Your task to perform on an android device: make emails show in primary in the gmail app Image 0: 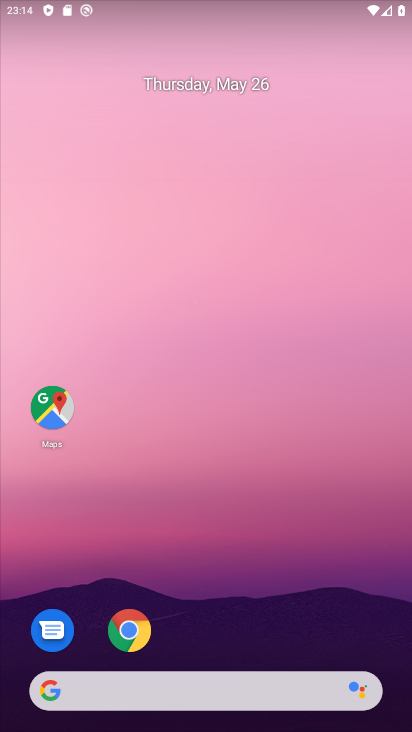
Step 0: drag from (262, 596) to (285, 98)
Your task to perform on an android device: make emails show in primary in the gmail app Image 1: 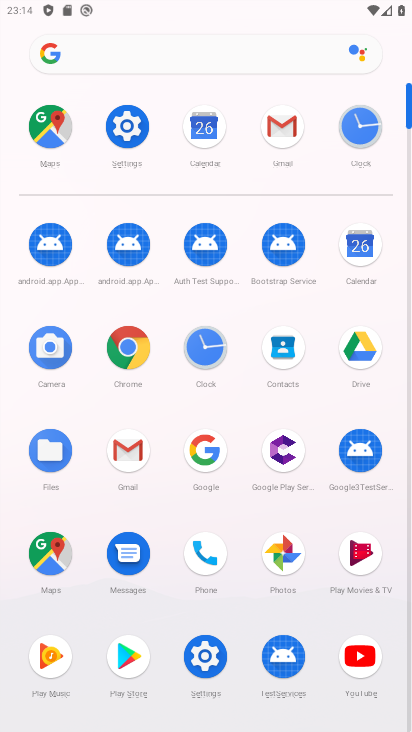
Step 1: click (282, 126)
Your task to perform on an android device: make emails show in primary in the gmail app Image 2: 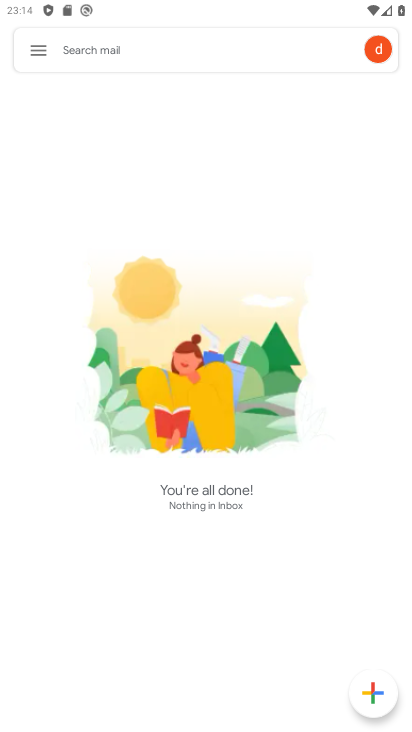
Step 2: click (40, 55)
Your task to perform on an android device: make emails show in primary in the gmail app Image 3: 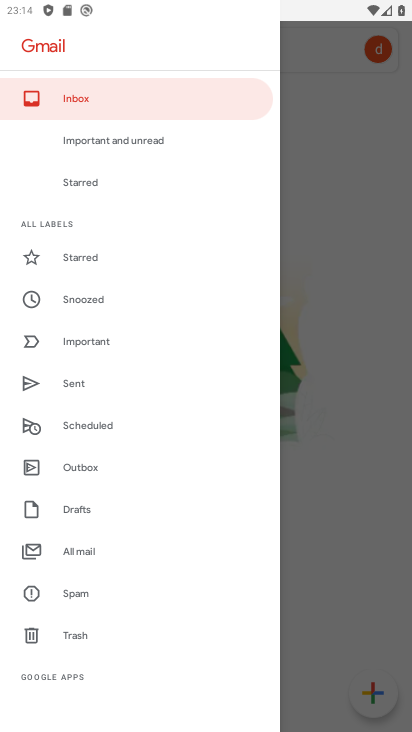
Step 3: drag from (86, 519) to (101, 463)
Your task to perform on an android device: make emails show in primary in the gmail app Image 4: 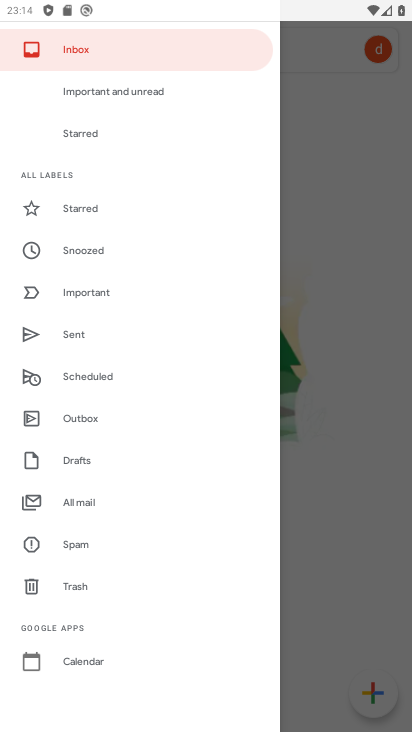
Step 4: drag from (78, 520) to (94, 472)
Your task to perform on an android device: make emails show in primary in the gmail app Image 5: 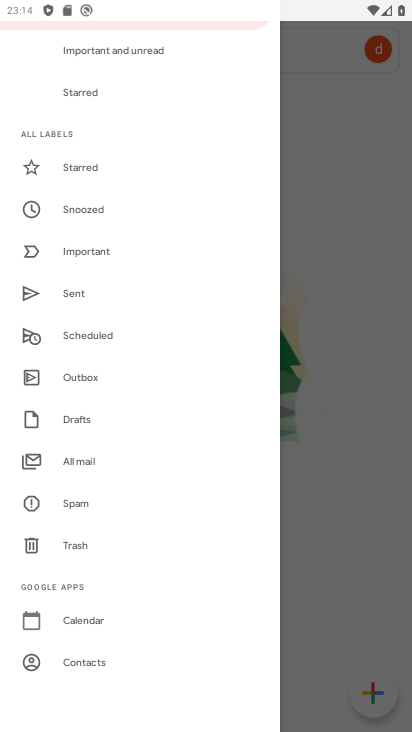
Step 5: drag from (79, 524) to (96, 483)
Your task to perform on an android device: make emails show in primary in the gmail app Image 6: 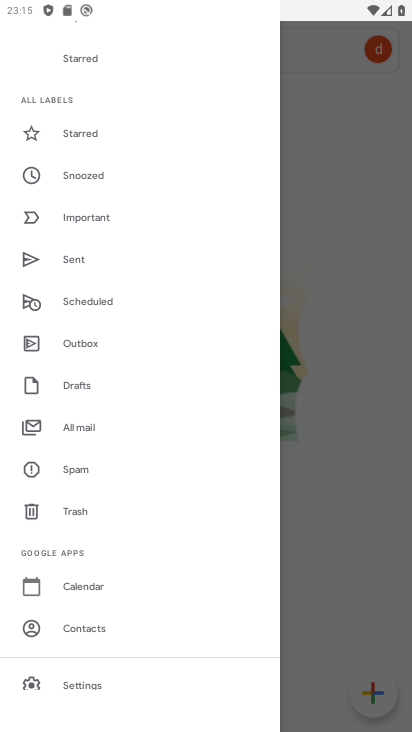
Step 6: drag from (63, 570) to (105, 513)
Your task to perform on an android device: make emails show in primary in the gmail app Image 7: 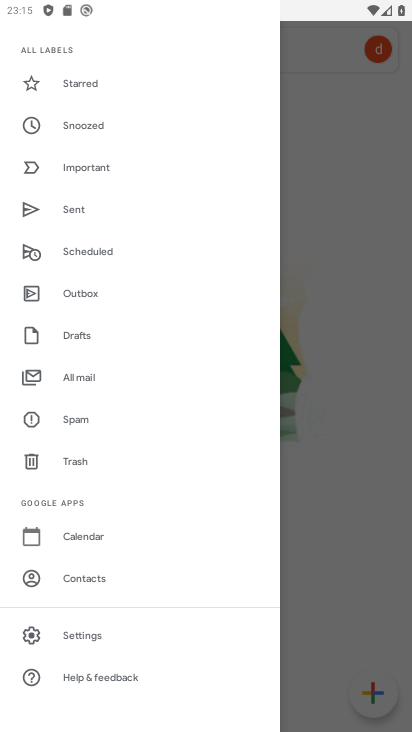
Step 7: drag from (63, 589) to (119, 522)
Your task to perform on an android device: make emails show in primary in the gmail app Image 8: 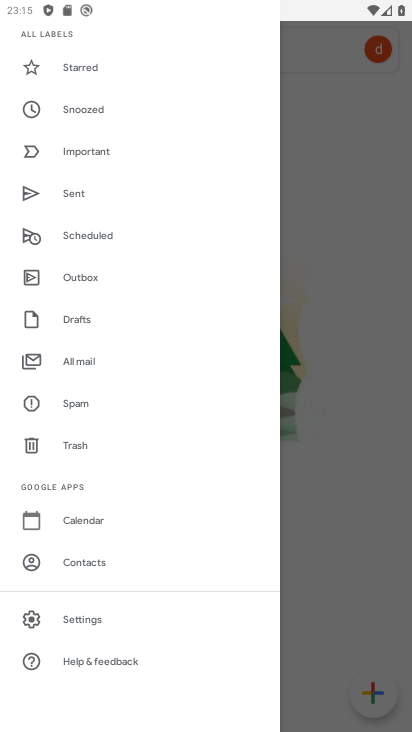
Step 8: click (94, 618)
Your task to perform on an android device: make emails show in primary in the gmail app Image 9: 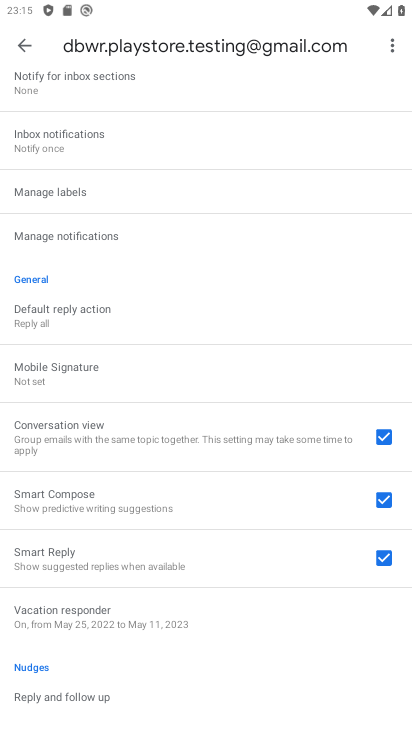
Step 9: drag from (132, 262) to (136, 349)
Your task to perform on an android device: make emails show in primary in the gmail app Image 10: 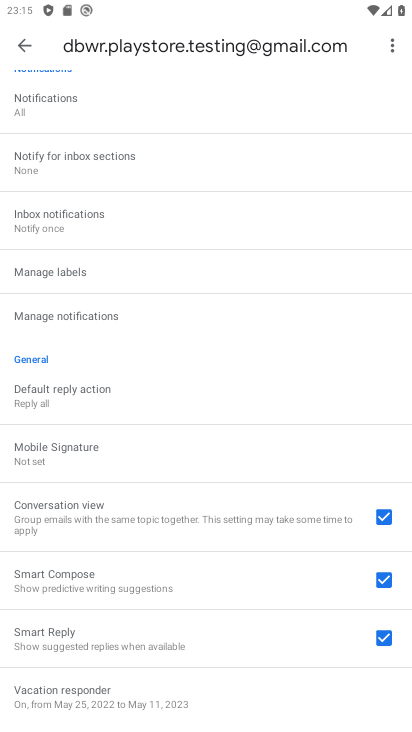
Step 10: drag from (149, 189) to (156, 304)
Your task to perform on an android device: make emails show in primary in the gmail app Image 11: 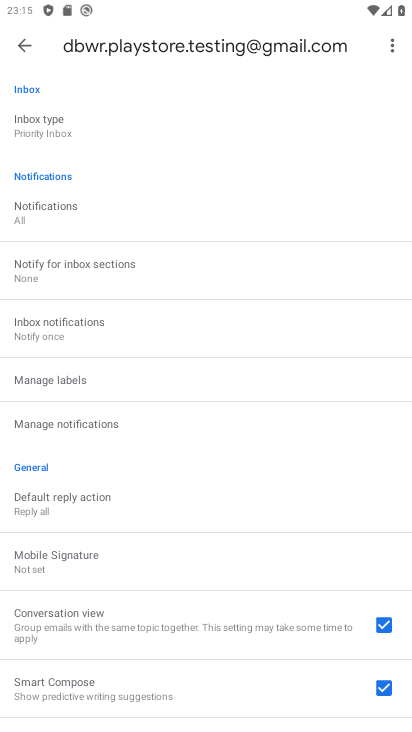
Step 11: click (49, 126)
Your task to perform on an android device: make emails show in primary in the gmail app Image 12: 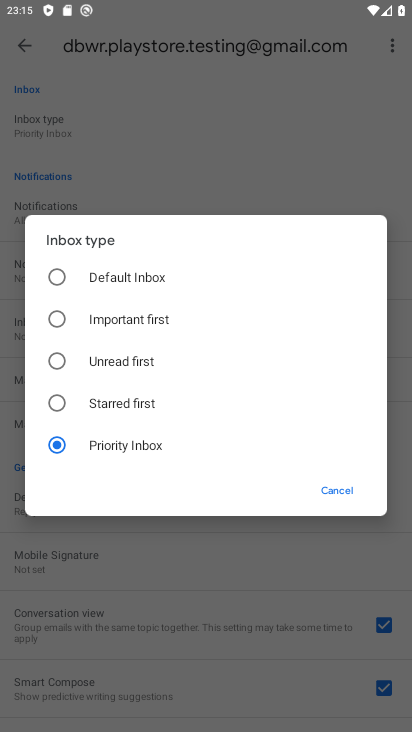
Step 12: click (53, 279)
Your task to perform on an android device: make emails show in primary in the gmail app Image 13: 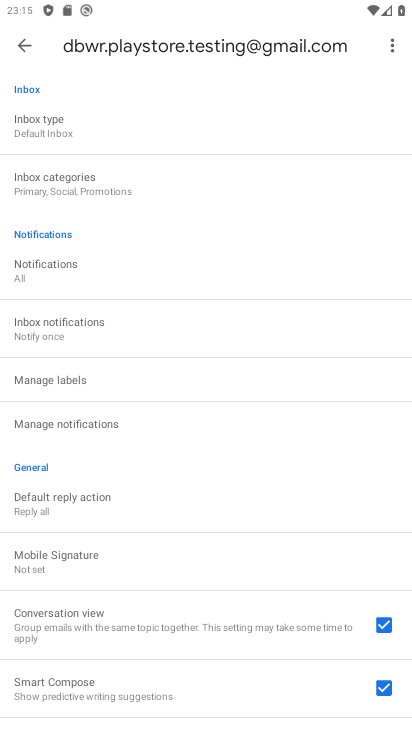
Step 13: click (79, 191)
Your task to perform on an android device: make emails show in primary in the gmail app Image 14: 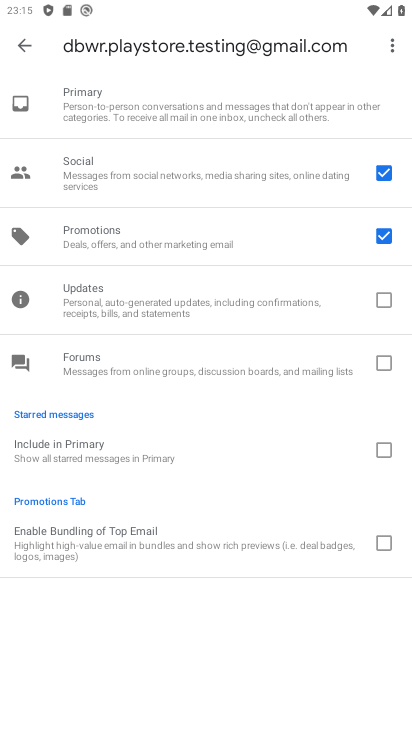
Step 14: click (382, 171)
Your task to perform on an android device: make emails show in primary in the gmail app Image 15: 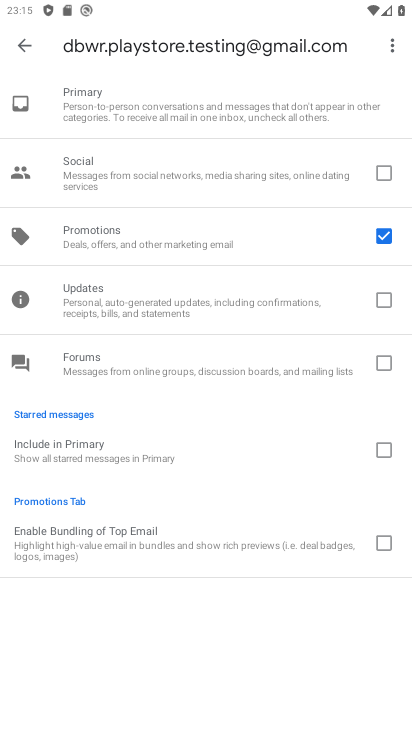
Step 15: click (377, 239)
Your task to perform on an android device: make emails show in primary in the gmail app Image 16: 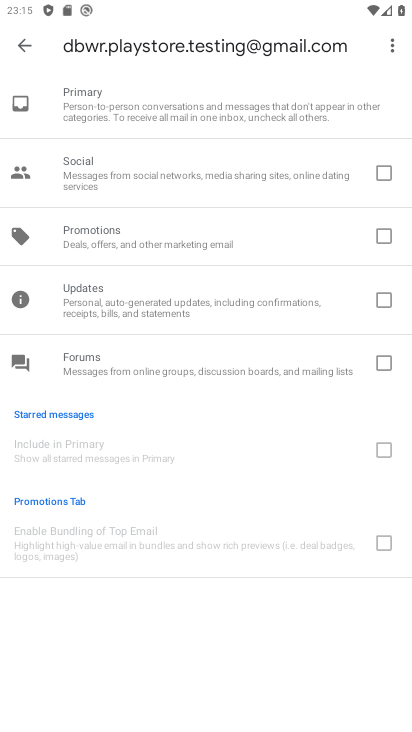
Step 16: task complete